Your task to perform on an android device: turn on showing notifications on the lock screen Image 0: 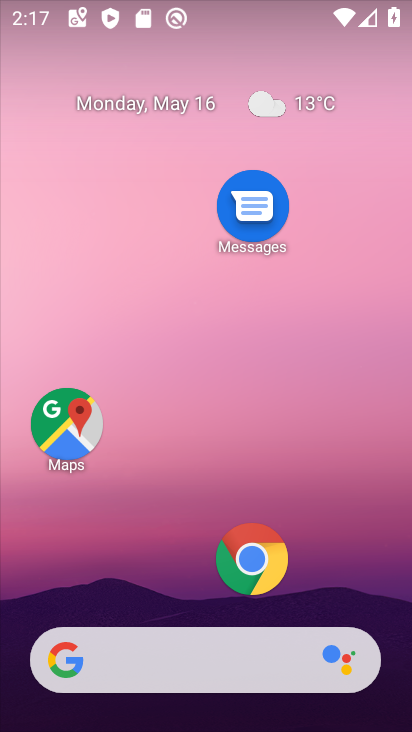
Step 0: drag from (134, 568) to (162, 112)
Your task to perform on an android device: turn on showing notifications on the lock screen Image 1: 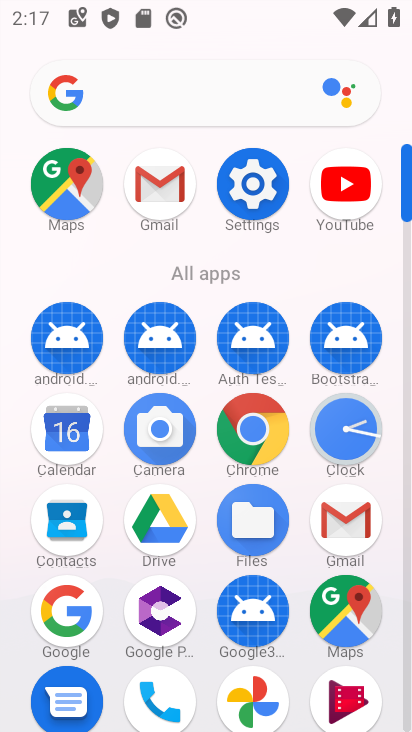
Step 1: click (246, 184)
Your task to perform on an android device: turn on showing notifications on the lock screen Image 2: 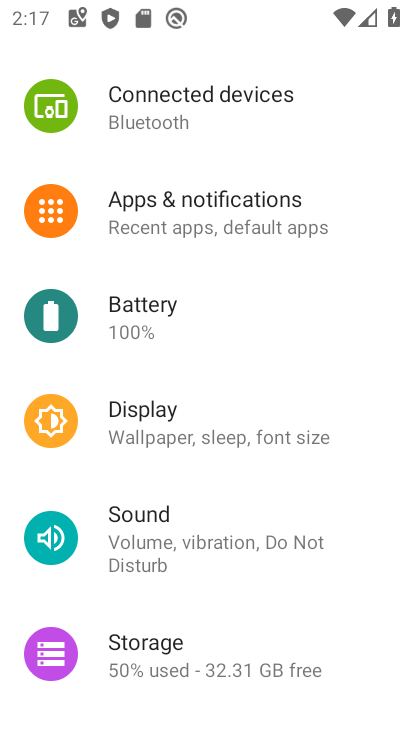
Step 2: click (194, 225)
Your task to perform on an android device: turn on showing notifications on the lock screen Image 3: 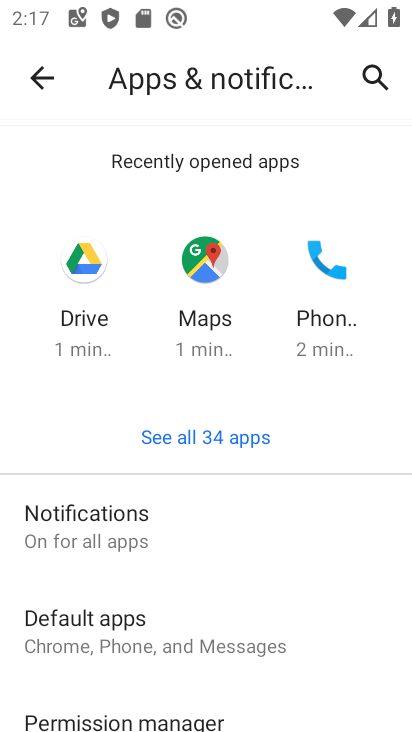
Step 3: click (94, 531)
Your task to perform on an android device: turn on showing notifications on the lock screen Image 4: 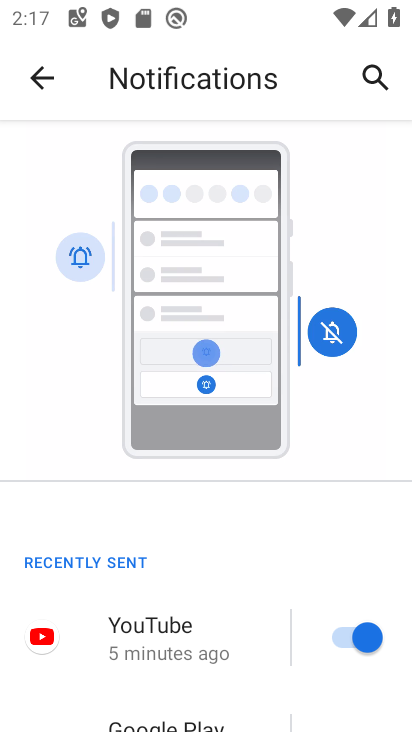
Step 4: drag from (258, 685) to (355, 230)
Your task to perform on an android device: turn on showing notifications on the lock screen Image 5: 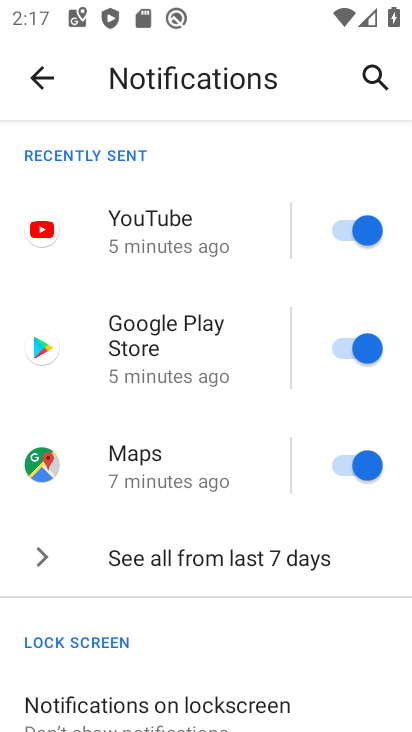
Step 5: drag from (181, 619) to (272, 323)
Your task to perform on an android device: turn on showing notifications on the lock screen Image 6: 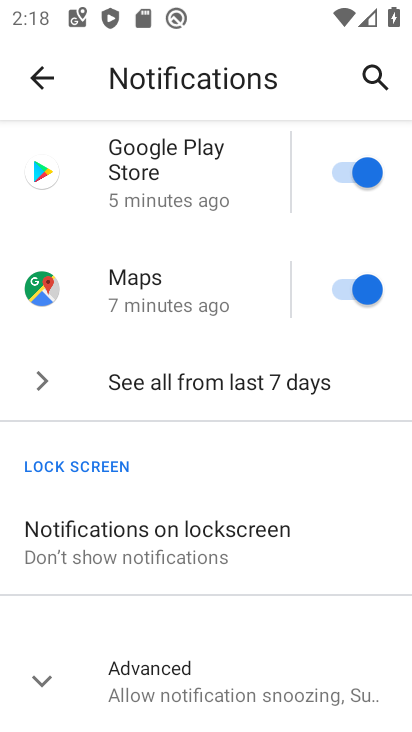
Step 6: click (138, 551)
Your task to perform on an android device: turn on showing notifications on the lock screen Image 7: 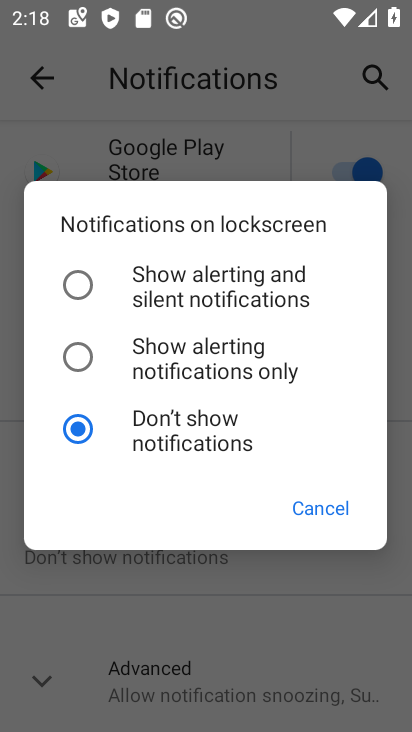
Step 7: click (207, 287)
Your task to perform on an android device: turn on showing notifications on the lock screen Image 8: 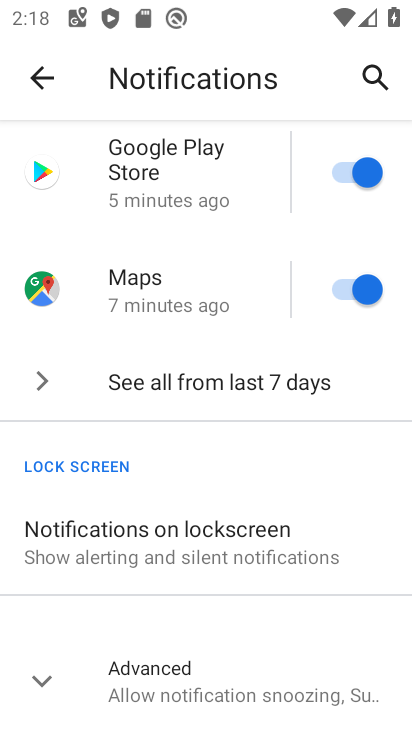
Step 8: task complete